Your task to perform on an android device: Check the weather Image 0: 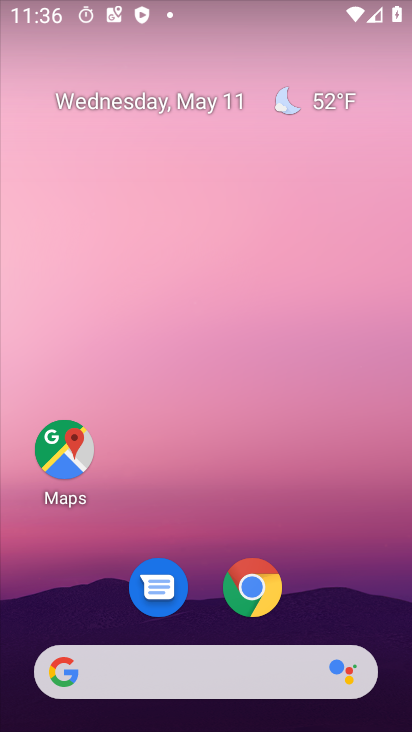
Step 0: drag from (192, 692) to (347, 143)
Your task to perform on an android device: Check the weather Image 1: 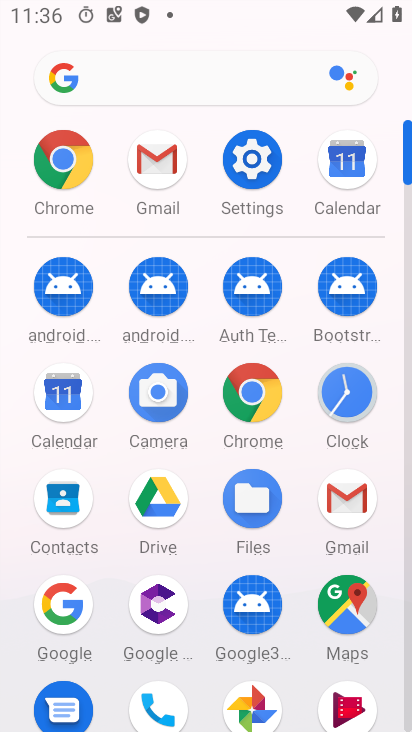
Step 1: click (151, 90)
Your task to perform on an android device: Check the weather Image 2: 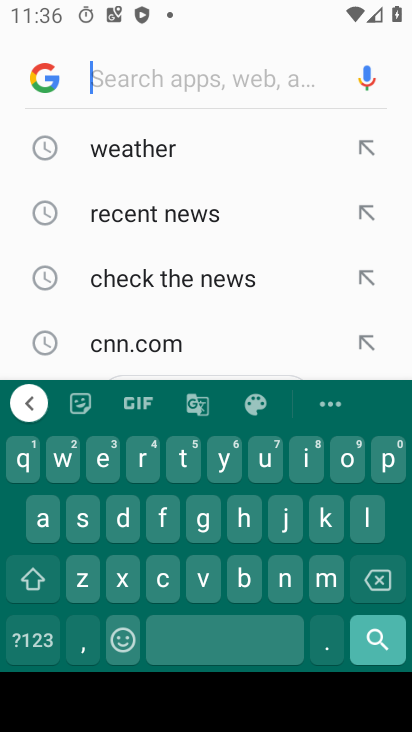
Step 2: click (141, 146)
Your task to perform on an android device: Check the weather Image 3: 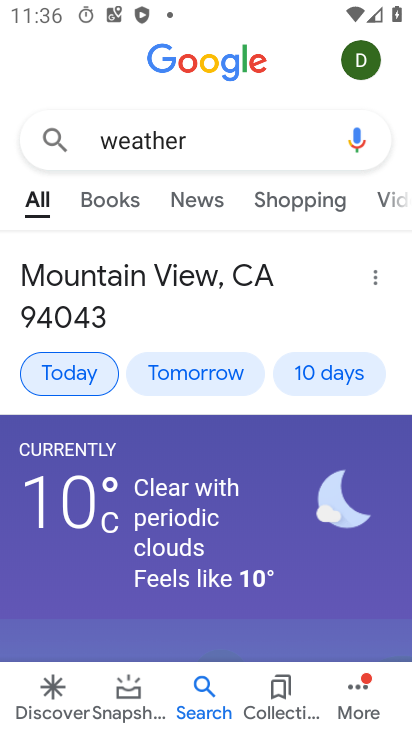
Step 3: task complete